Your task to perform on an android device: Show me popular videos on Youtube Image 0: 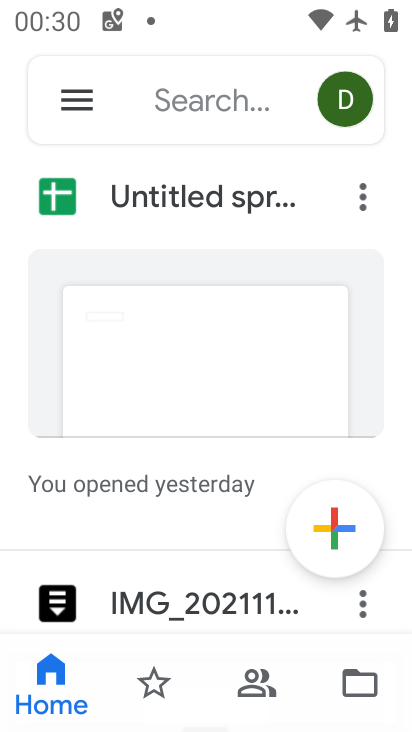
Step 0: press home button
Your task to perform on an android device: Show me popular videos on Youtube Image 1: 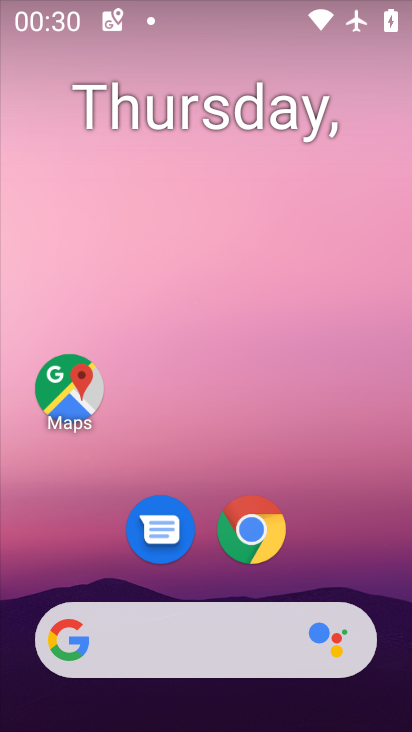
Step 1: drag from (398, 629) to (331, 101)
Your task to perform on an android device: Show me popular videos on Youtube Image 2: 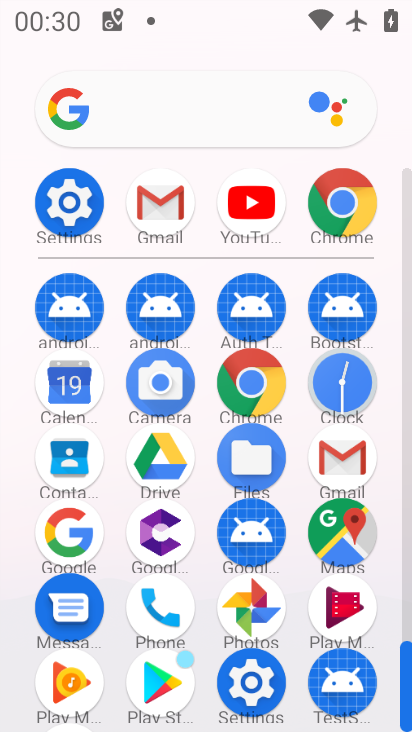
Step 2: click (407, 618)
Your task to perform on an android device: Show me popular videos on Youtube Image 3: 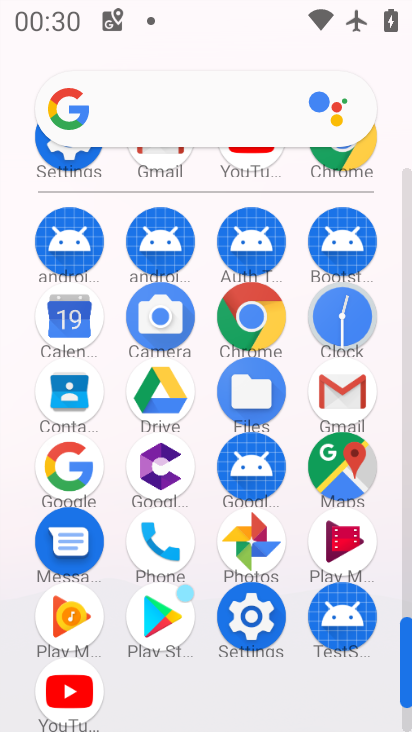
Step 3: click (405, 723)
Your task to perform on an android device: Show me popular videos on Youtube Image 4: 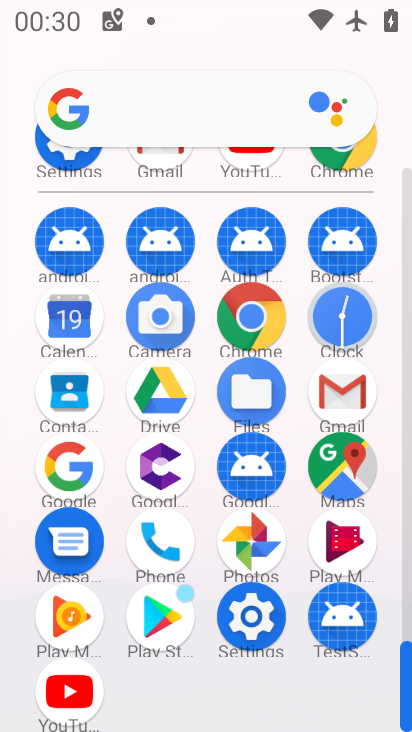
Step 4: click (71, 688)
Your task to perform on an android device: Show me popular videos on Youtube Image 5: 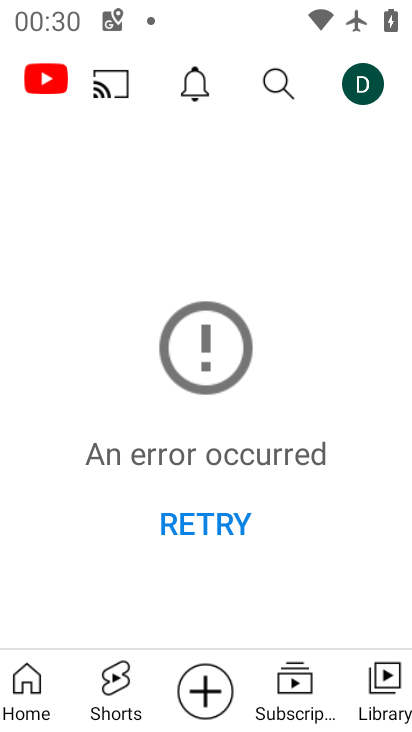
Step 5: click (205, 516)
Your task to perform on an android device: Show me popular videos on Youtube Image 6: 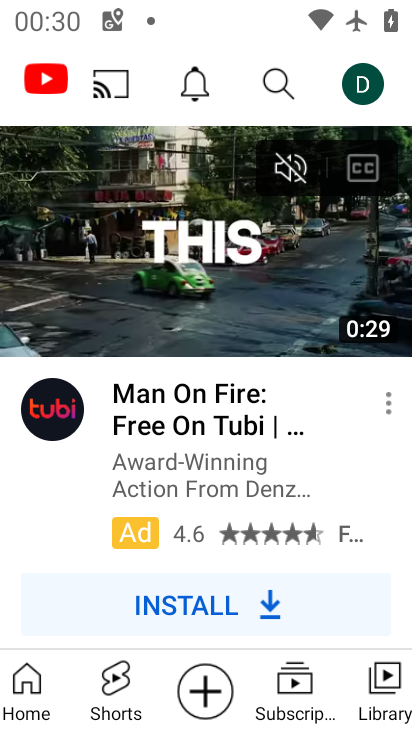
Step 6: task complete